Your task to perform on an android device: Play the last video I watched on Youtube Image 0: 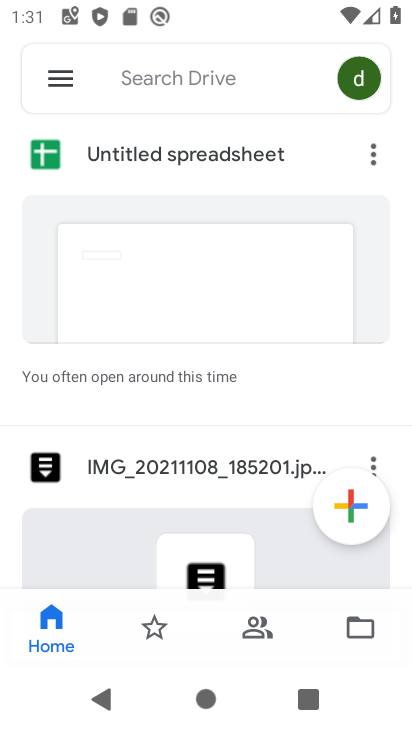
Step 0: press back button
Your task to perform on an android device: Play the last video I watched on Youtube Image 1: 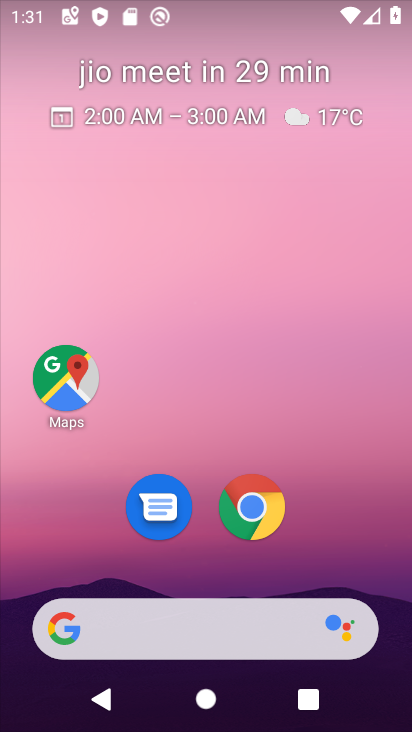
Step 1: drag from (354, 529) to (253, 29)
Your task to perform on an android device: Play the last video I watched on Youtube Image 2: 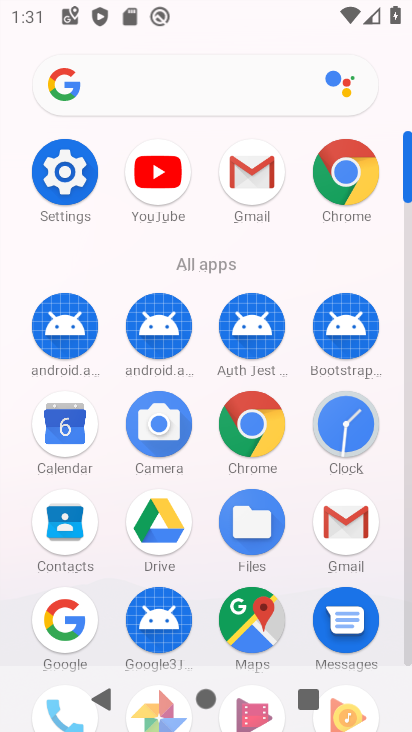
Step 2: click (153, 165)
Your task to perform on an android device: Play the last video I watched on Youtube Image 3: 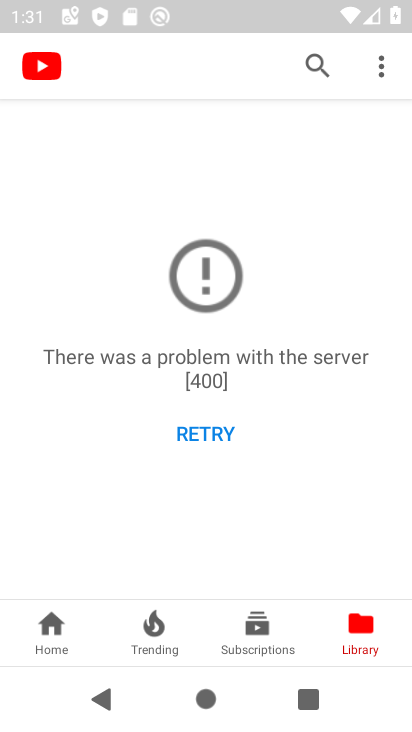
Step 3: click (369, 622)
Your task to perform on an android device: Play the last video I watched on Youtube Image 4: 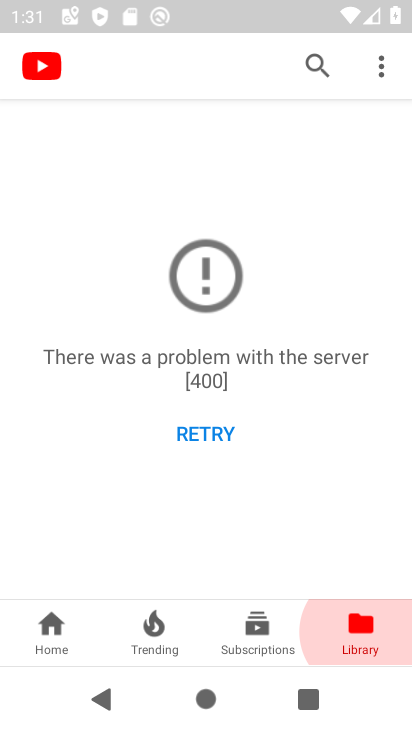
Step 4: click (0, 640)
Your task to perform on an android device: Play the last video I watched on Youtube Image 5: 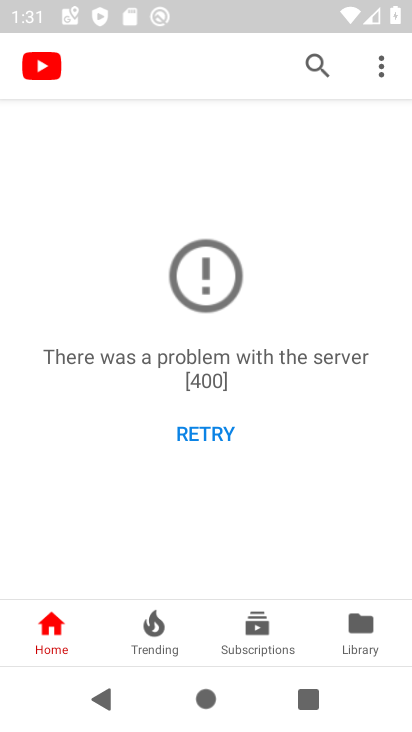
Step 5: click (345, 625)
Your task to perform on an android device: Play the last video I watched on Youtube Image 6: 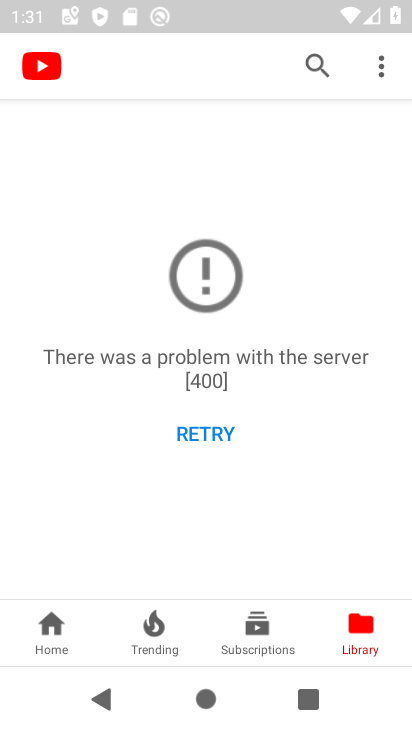
Step 6: task complete